Your task to perform on an android device: What's on my calendar tomorrow? Image 0: 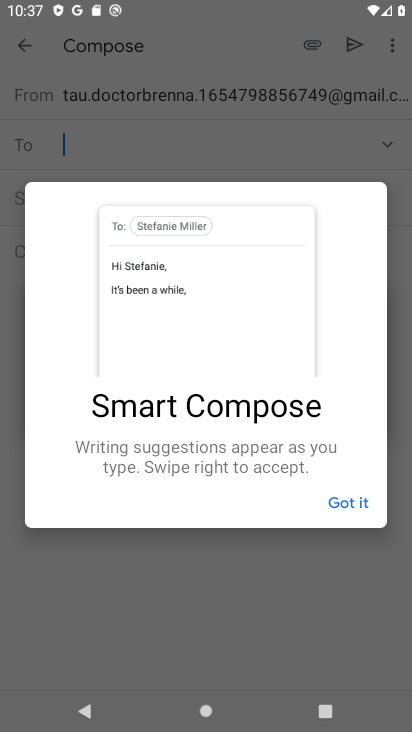
Step 0: press home button
Your task to perform on an android device: What's on my calendar tomorrow? Image 1: 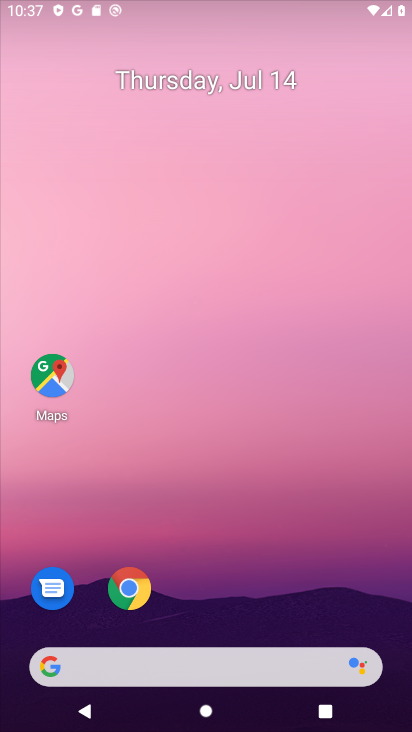
Step 1: drag from (312, 614) to (299, 38)
Your task to perform on an android device: What's on my calendar tomorrow? Image 2: 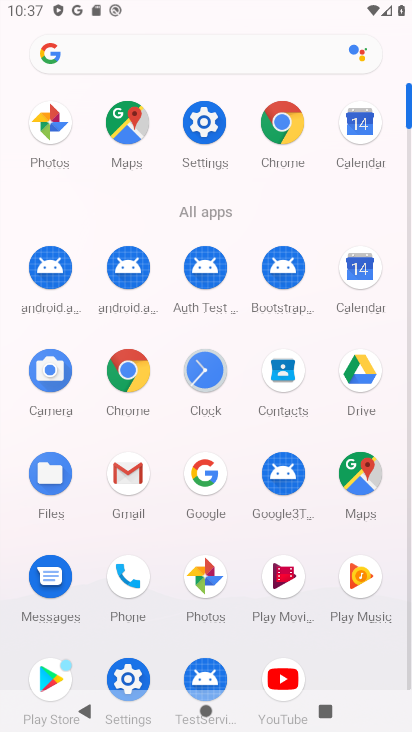
Step 2: click (338, 283)
Your task to perform on an android device: What's on my calendar tomorrow? Image 3: 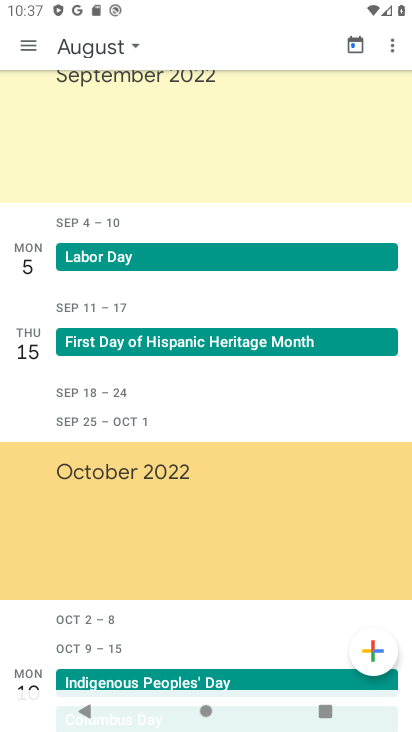
Step 3: click (129, 54)
Your task to perform on an android device: What's on my calendar tomorrow? Image 4: 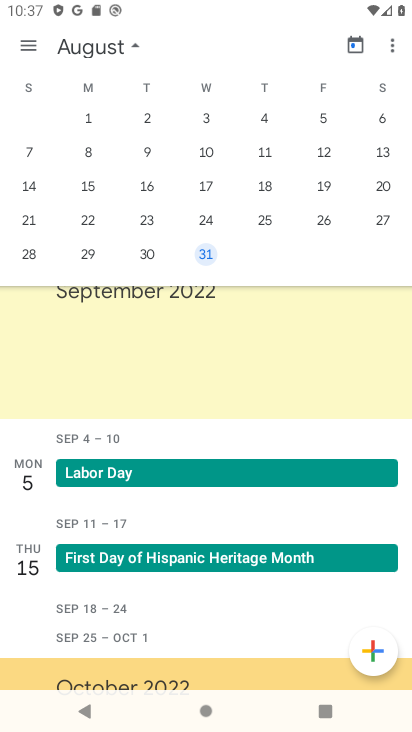
Step 4: drag from (100, 178) to (398, 191)
Your task to perform on an android device: What's on my calendar tomorrow? Image 5: 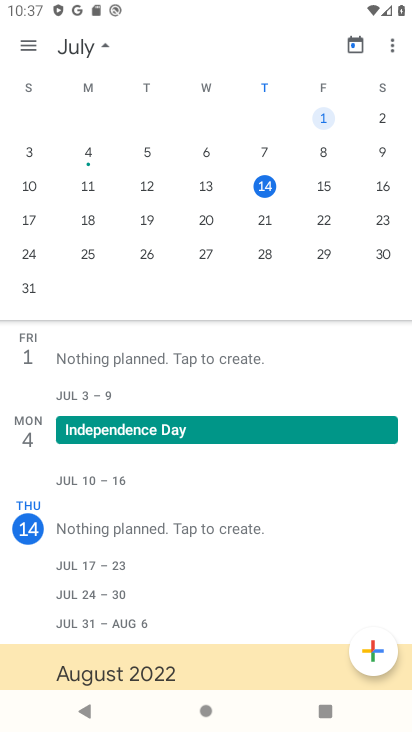
Step 5: click (378, 190)
Your task to perform on an android device: What's on my calendar tomorrow? Image 6: 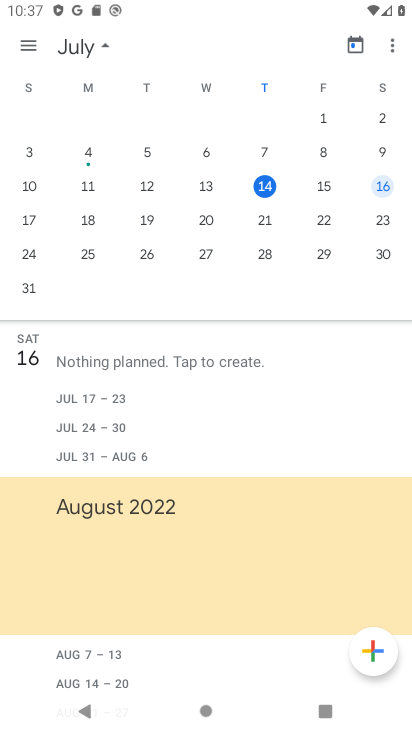
Step 6: click (104, 43)
Your task to perform on an android device: What's on my calendar tomorrow? Image 7: 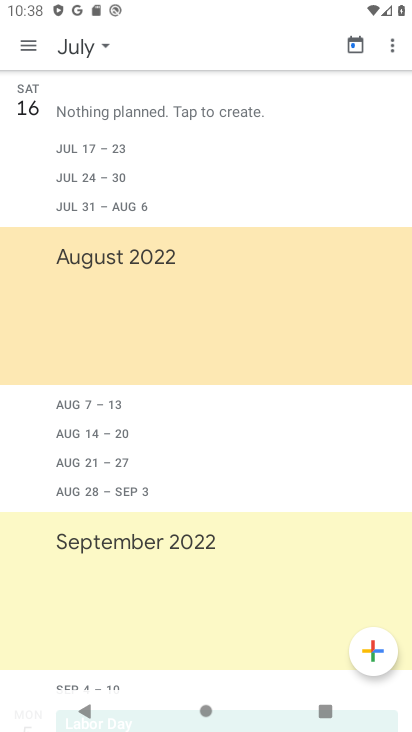
Step 7: task complete